Your task to perform on an android device: Search for sushi restaurants on Maps Image 0: 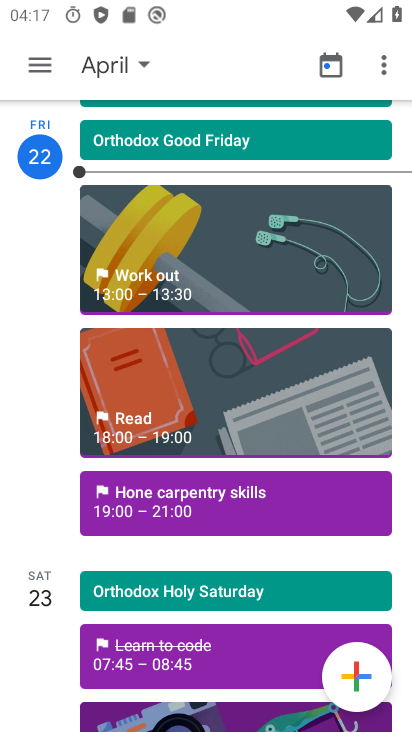
Step 0: press home button
Your task to perform on an android device: Search for sushi restaurants on Maps Image 1: 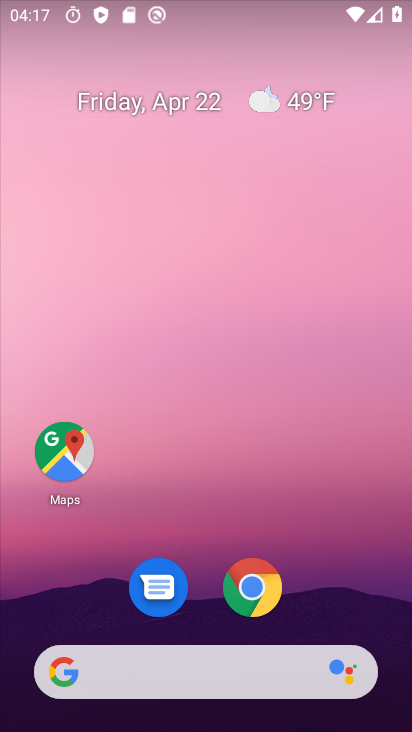
Step 1: click (64, 455)
Your task to perform on an android device: Search for sushi restaurants on Maps Image 2: 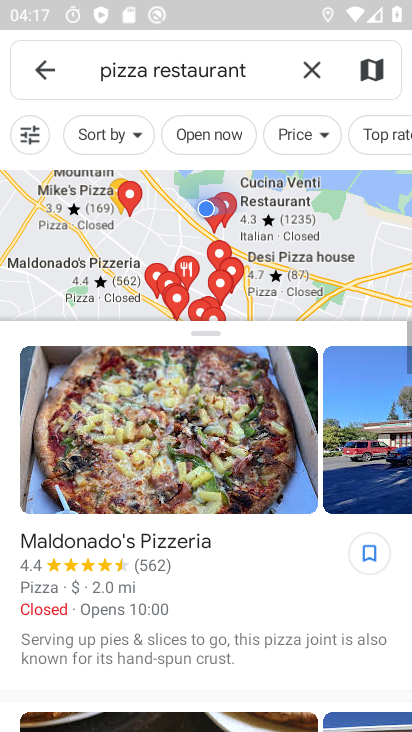
Step 2: click (312, 70)
Your task to perform on an android device: Search for sushi restaurants on Maps Image 3: 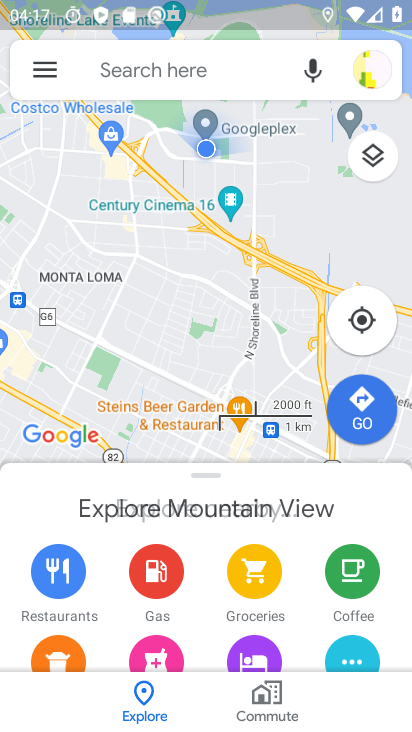
Step 3: click (116, 72)
Your task to perform on an android device: Search for sushi restaurants on Maps Image 4: 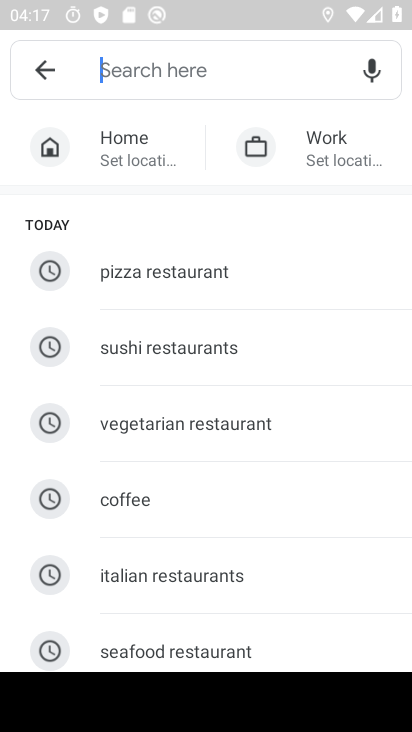
Step 4: type "sushi restaurant"
Your task to perform on an android device: Search for sushi restaurants on Maps Image 5: 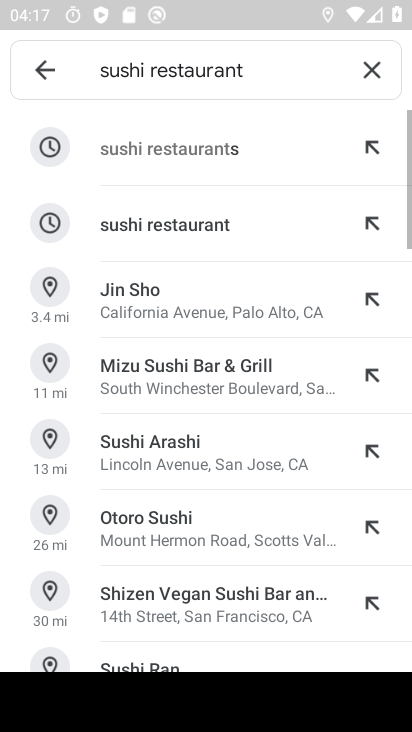
Step 5: click (163, 159)
Your task to perform on an android device: Search for sushi restaurants on Maps Image 6: 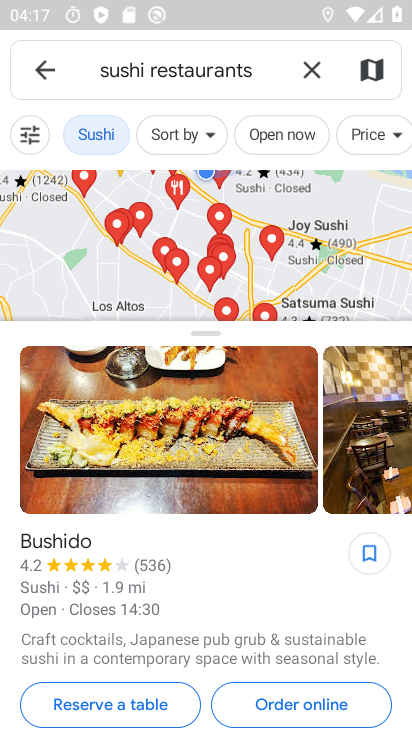
Step 6: task complete